Your task to perform on an android device: open chrome and create a bookmark for the current page Image 0: 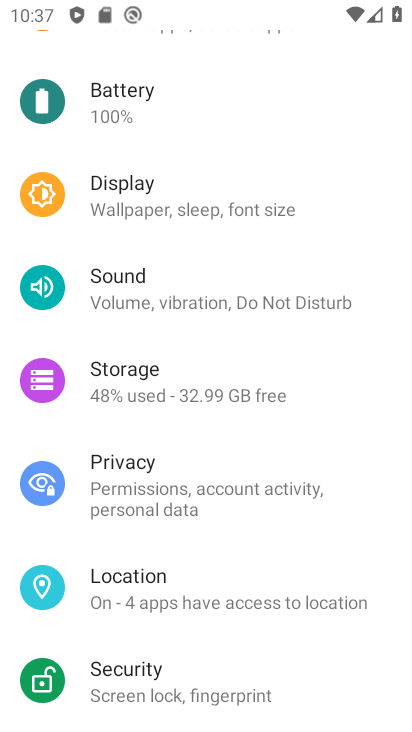
Step 0: press home button
Your task to perform on an android device: open chrome and create a bookmark for the current page Image 1: 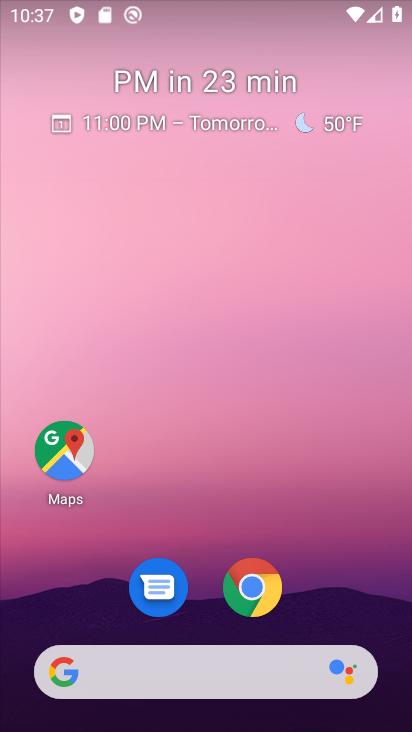
Step 1: click (261, 590)
Your task to perform on an android device: open chrome and create a bookmark for the current page Image 2: 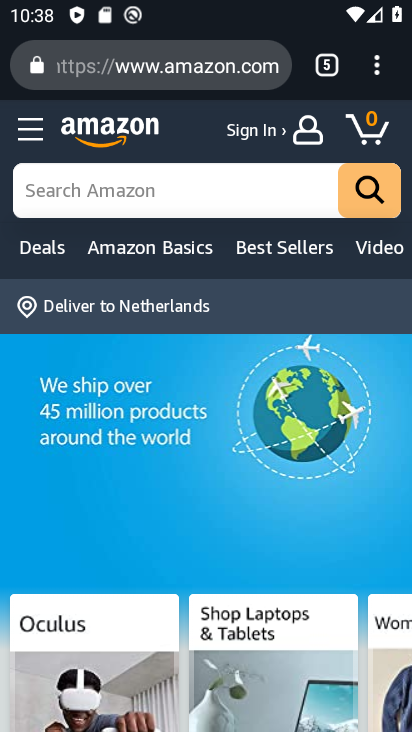
Step 2: task complete